Your task to perform on an android device: Go to Yahoo.com Image 0: 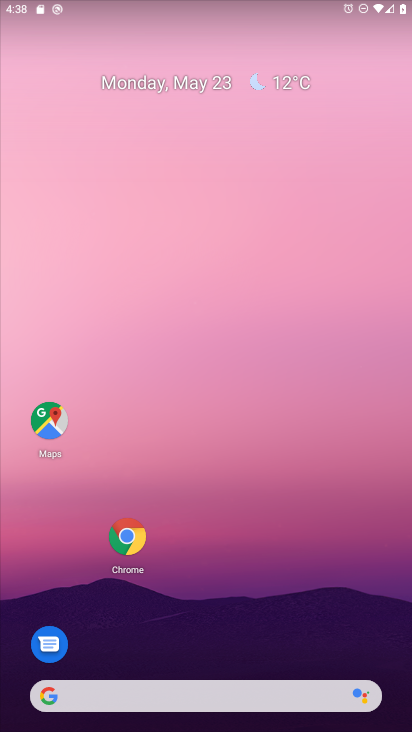
Step 0: click (129, 541)
Your task to perform on an android device: Go to Yahoo.com Image 1: 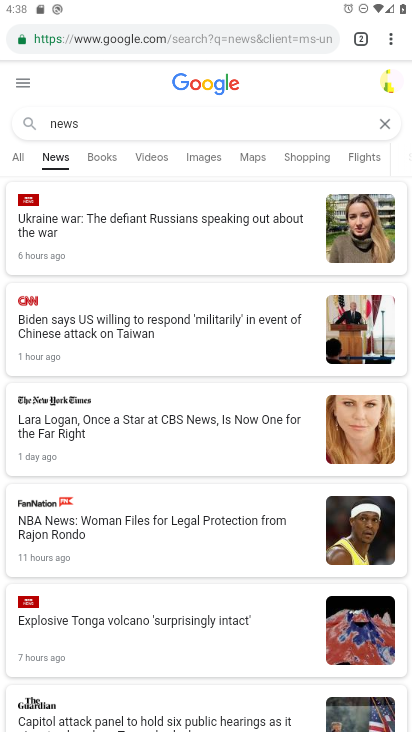
Step 1: click (105, 30)
Your task to perform on an android device: Go to Yahoo.com Image 2: 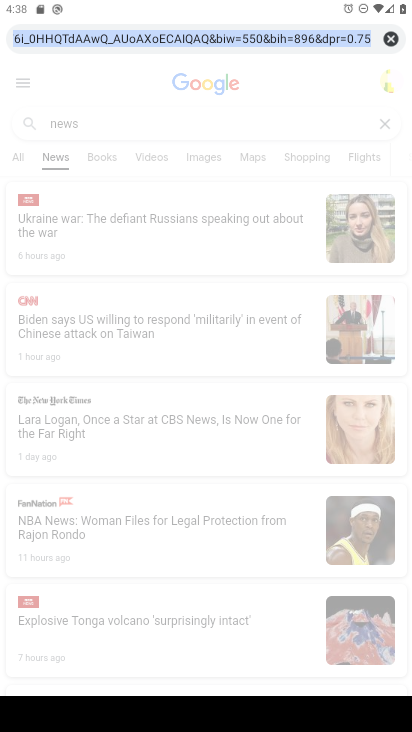
Step 2: click (388, 34)
Your task to perform on an android device: Go to Yahoo.com Image 3: 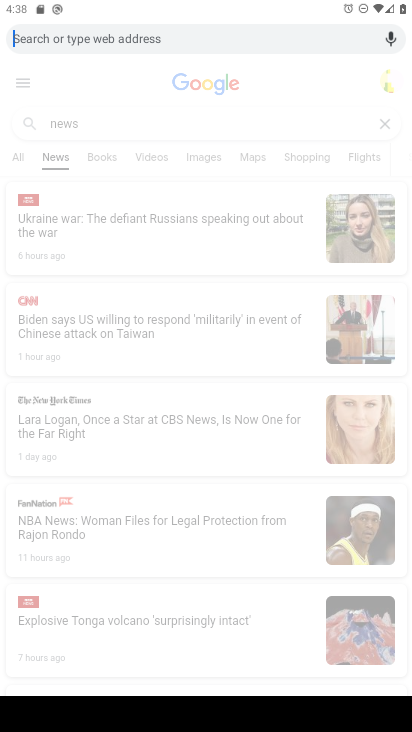
Step 3: type "yahoo.com"
Your task to perform on an android device: Go to Yahoo.com Image 4: 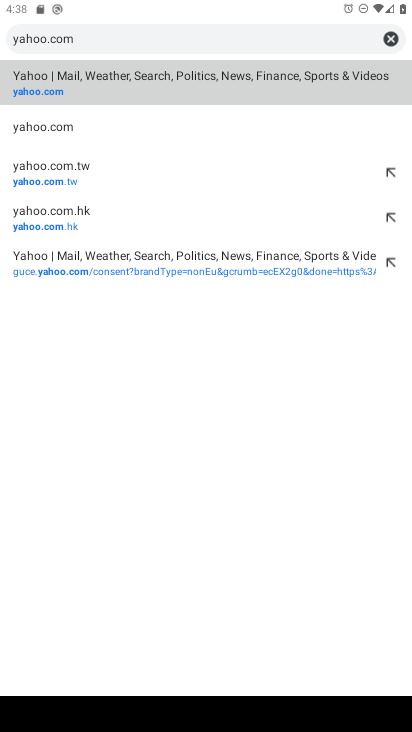
Step 4: click (46, 80)
Your task to perform on an android device: Go to Yahoo.com Image 5: 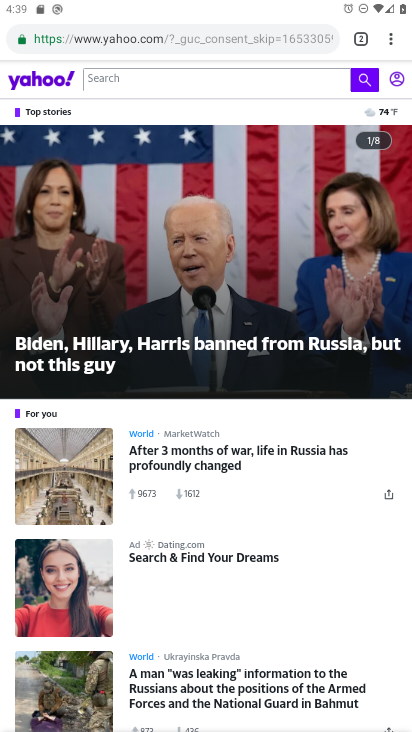
Step 5: task complete